Your task to perform on an android device: Play the last video I watched on Youtube Image 0: 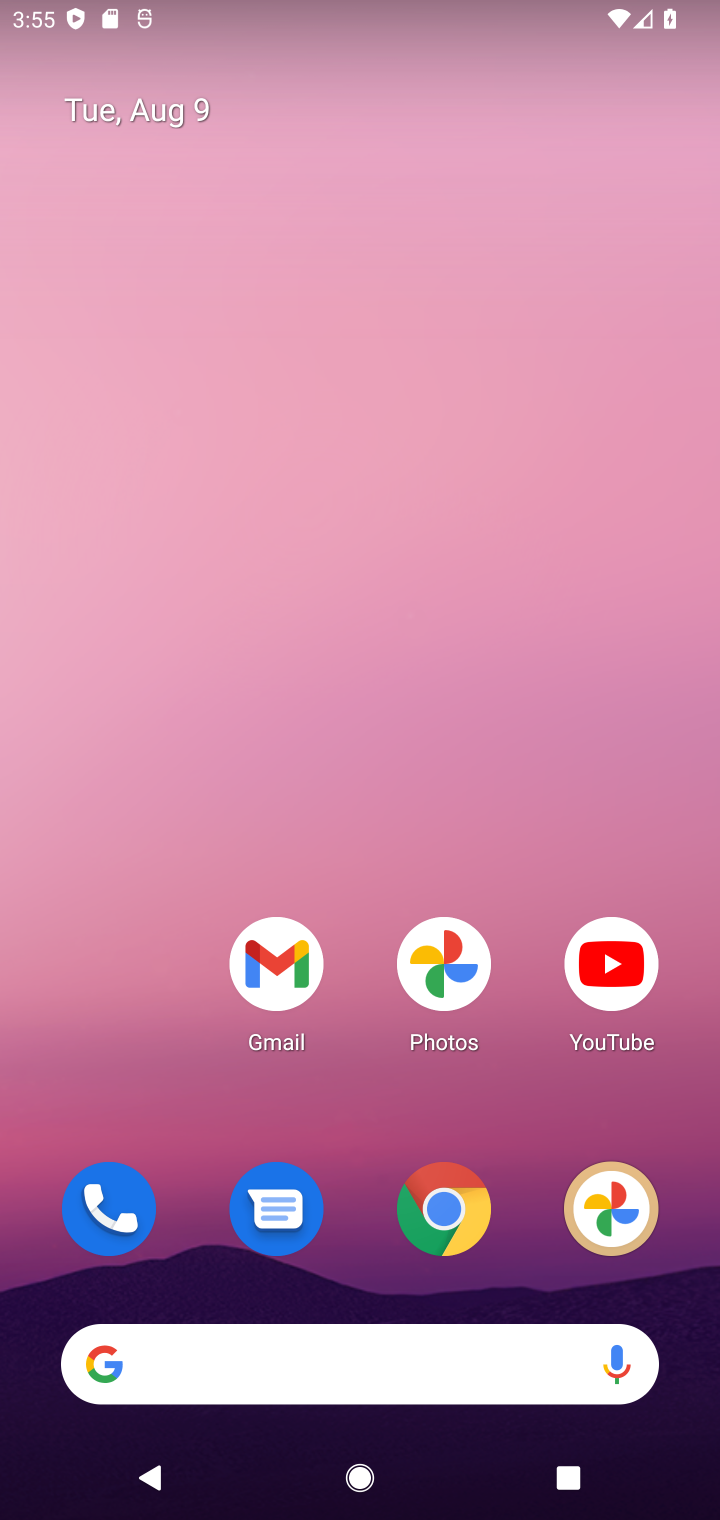
Step 0: click (604, 967)
Your task to perform on an android device: Play the last video I watched on Youtube Image 1: 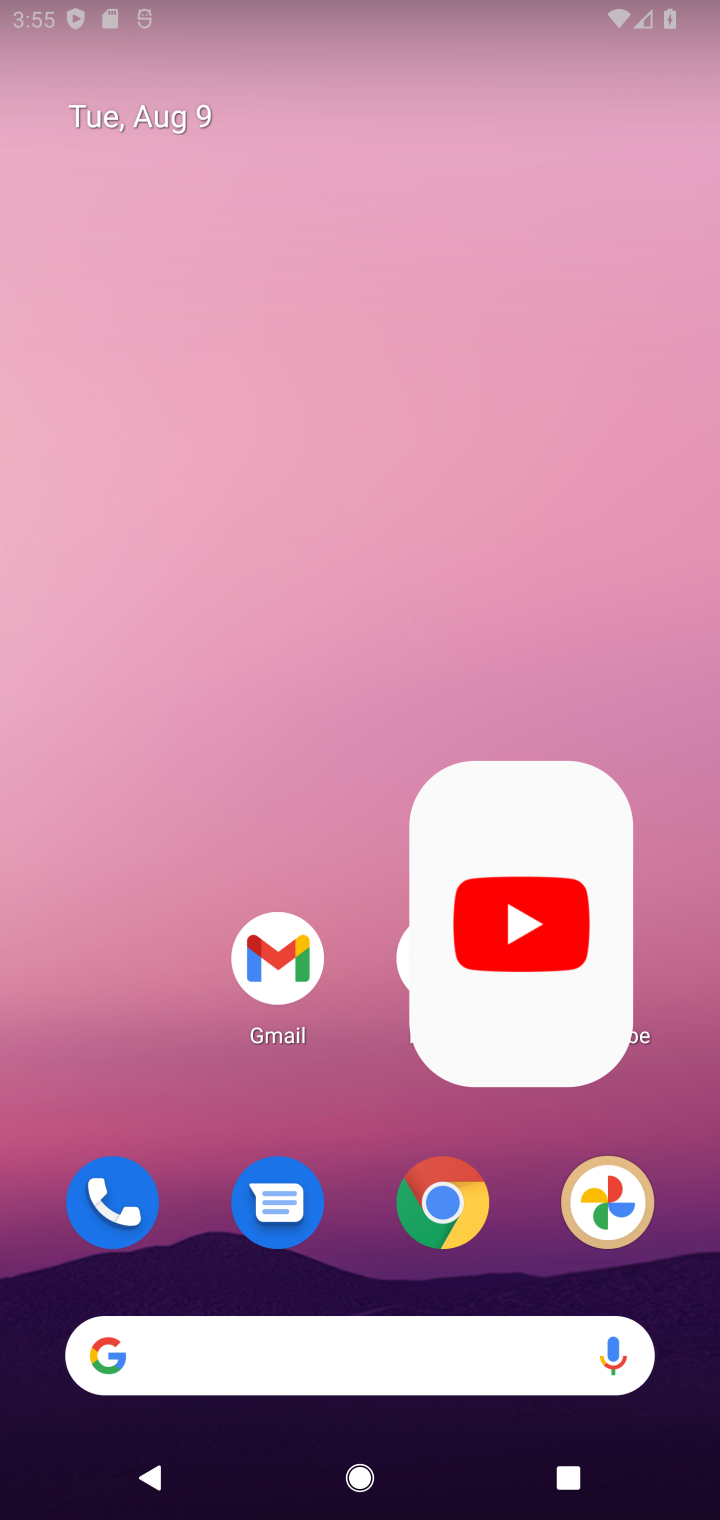
Step 1: click (604, 967)
Your task to perform on an android device: Play the last video I watched on Youtube Image 2: 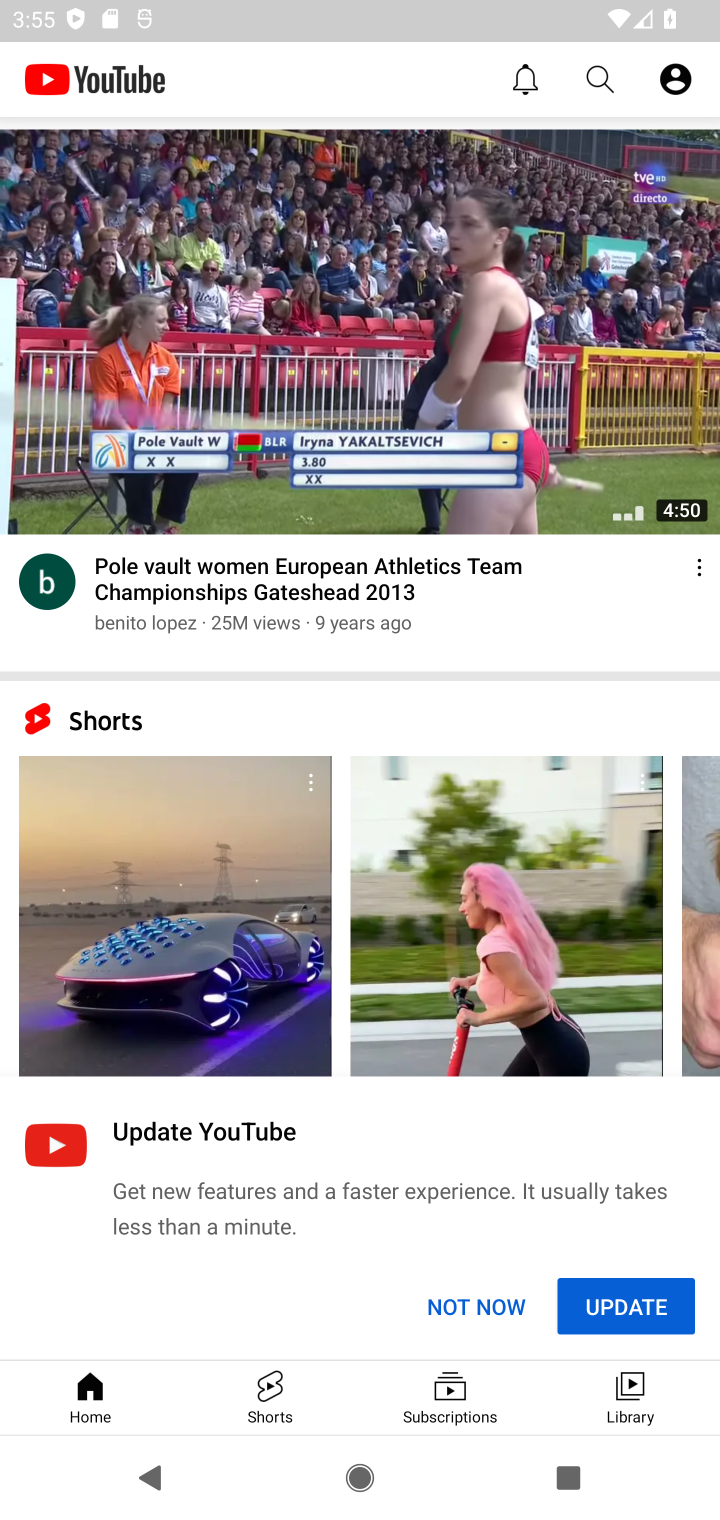
Step 2: click (637, 1393)
Your task to perform on an android device: Play the last video I watched on Youtube Image 3: 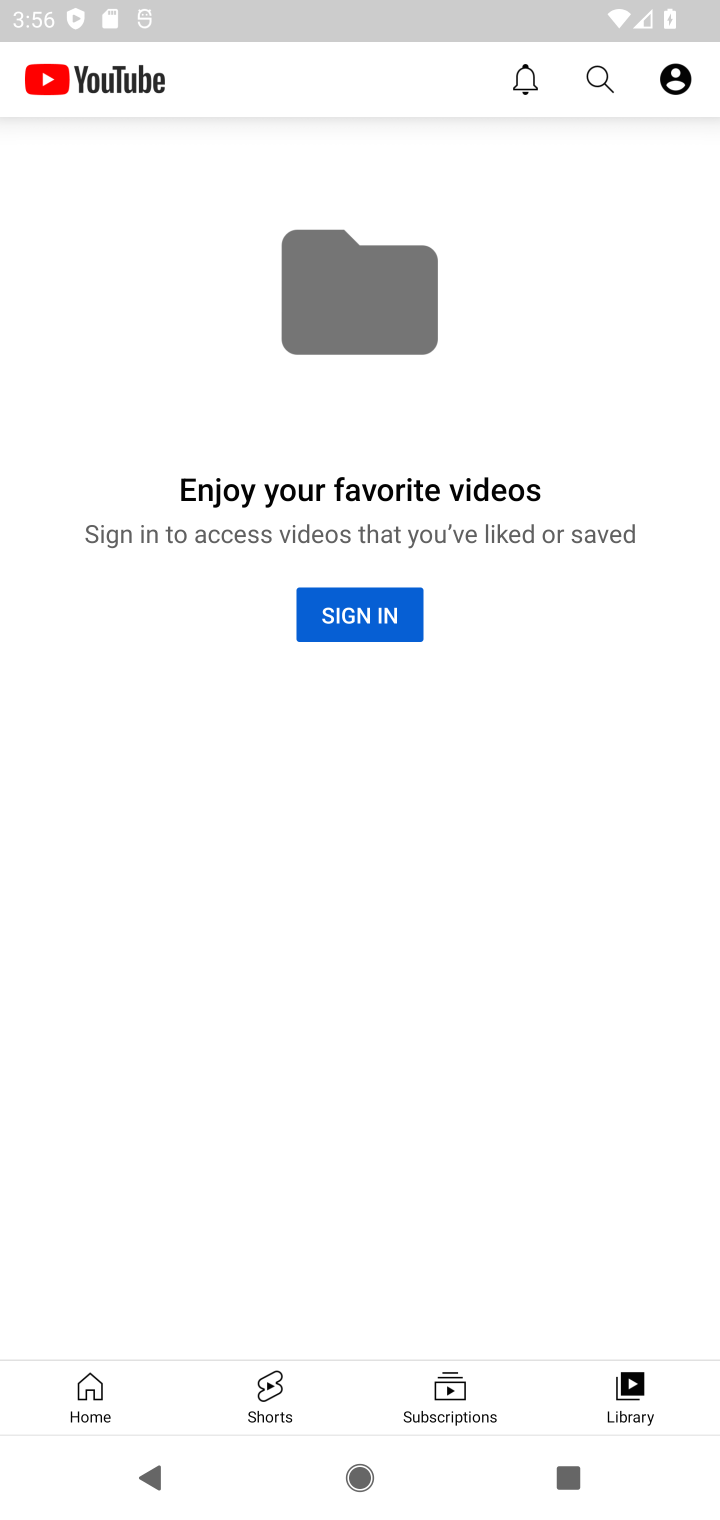
Step 3: task complete